Your task to perform on an android device: Open notification settings Image 0: 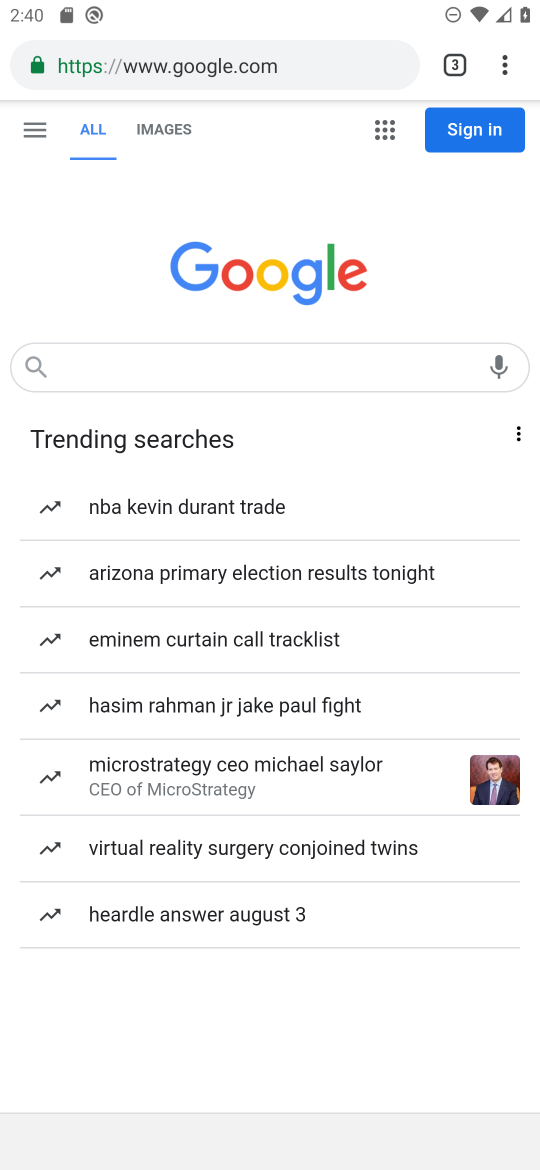
Step 0: press home button
Your task to perform on an android device: Open notification settings Image 1: 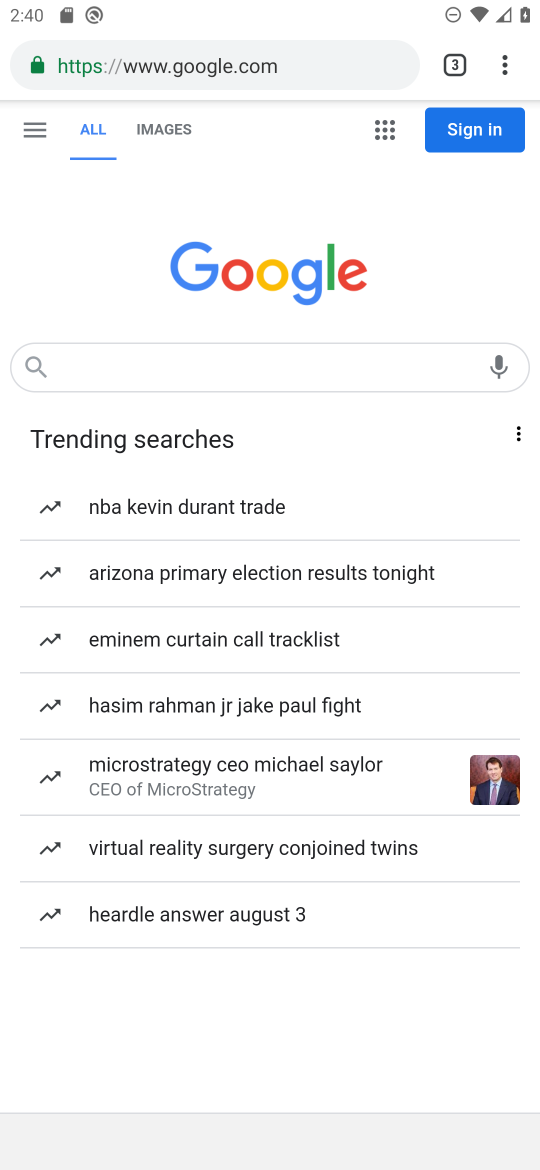
Step 1: press home button
Your task to perform on an android device: Open notification settings Image 2: 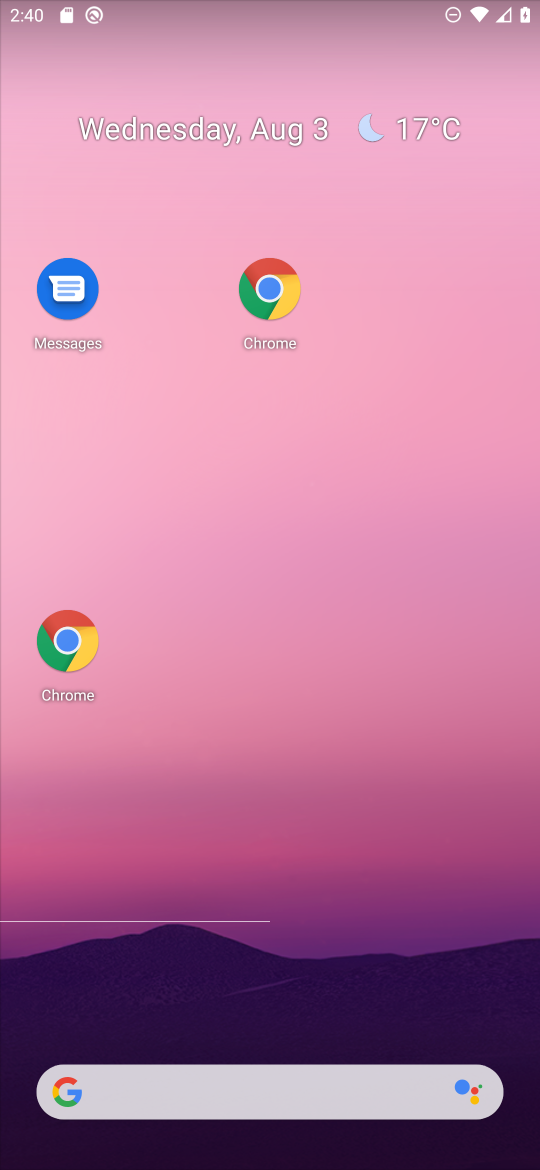
Step 2: drag from (305, 943) to (529, 141)
Your task to perform on an android device: Open notification settings Image 3: 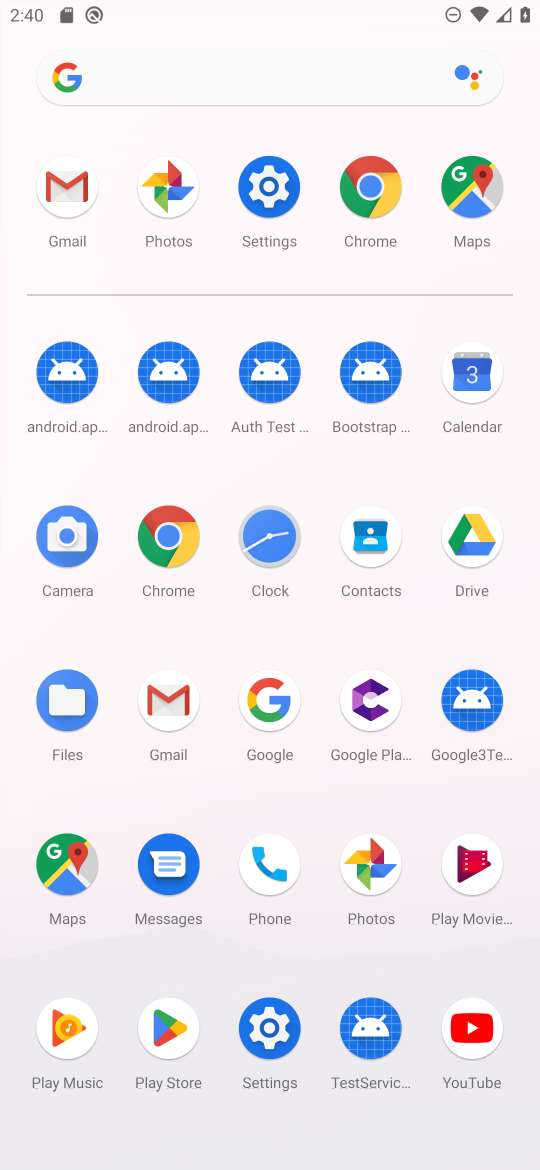
Step 3: click (261, 184)
Your task to perform on an android device: Open notification settings Image 4: 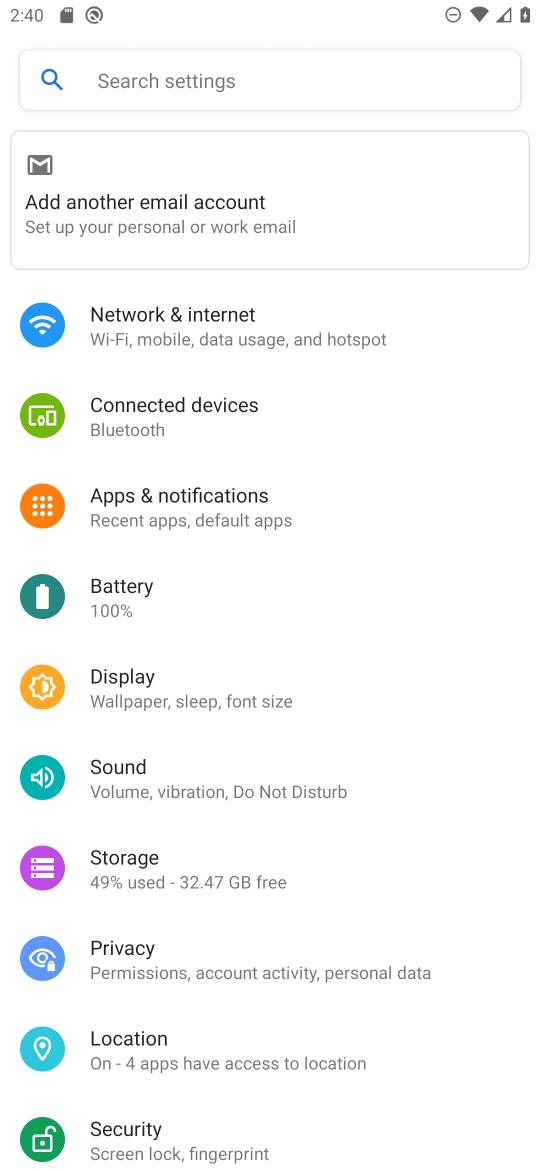
Step 4: click (150, 516)
Your task to perform on an android device: Open notification settings Image 5: 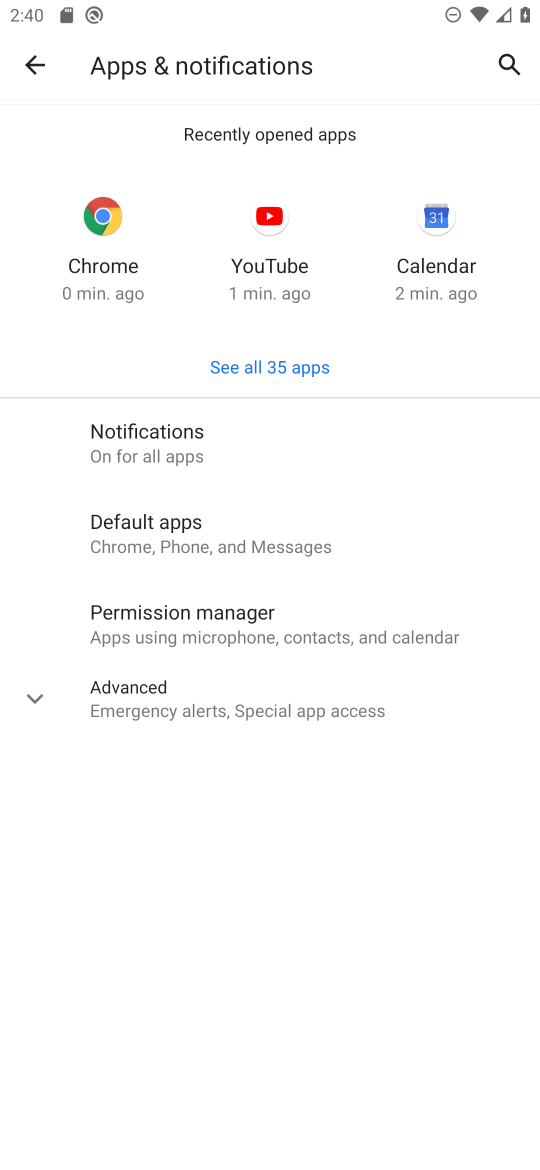
Step 5: task complete